Your task to perform on an android device: Open settings on Google Maps Image 0: 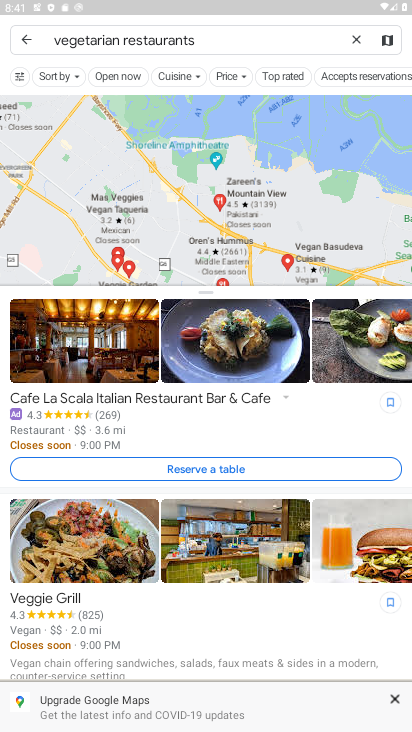
Step 0: press home button
Your task to perform on an android device: Open settings on Google Maps Image 1: 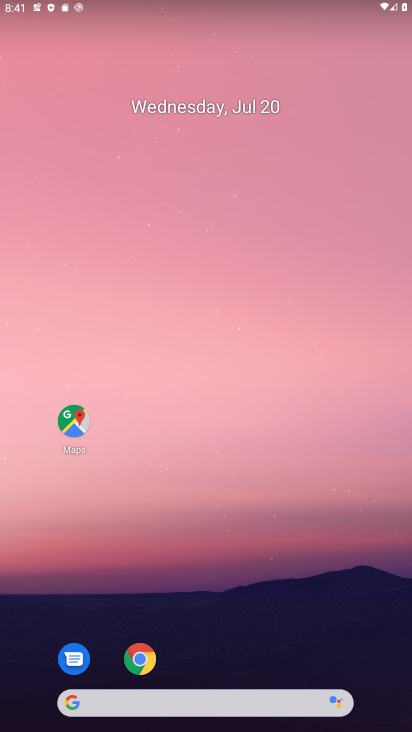
Step 1: drag from (229, 636) to (238, 38)
Your task to perform on an android device: Open settings on Google Maps Image 2: 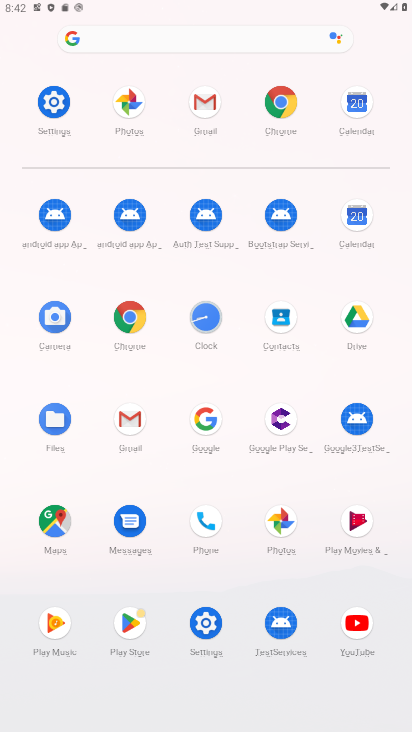
Step 2: click (60, 521)
Your task to perform on an android device: Open settings on Google Maps Image 3: 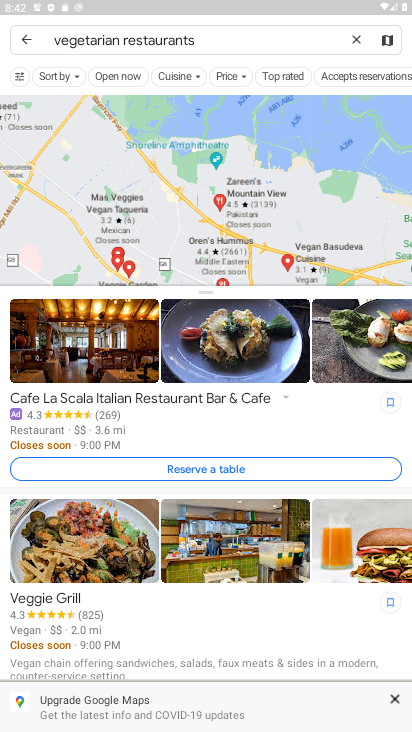
Step 3: press home button
Your task to perform on an android device: Open settings on Google Maps Image 4: 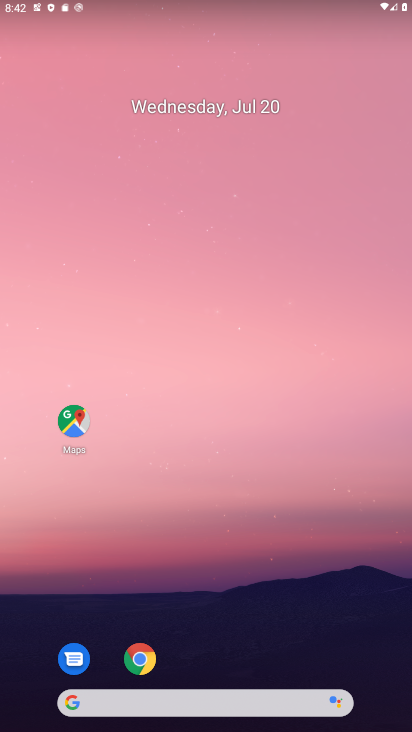
Step 4: drag from (242, 632) to (285, 126)
Your task to perform on an android device: Open settings on Google Maps Image 5: 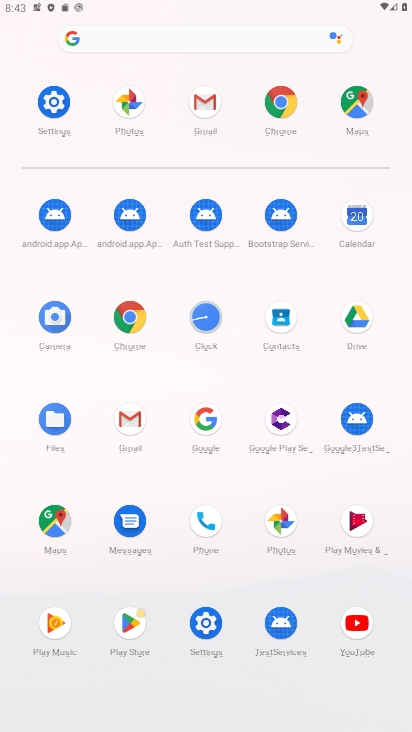
Step 5: click (49, 517)
Your task to perform on an android device: Open settings on Google Maps Image 6: 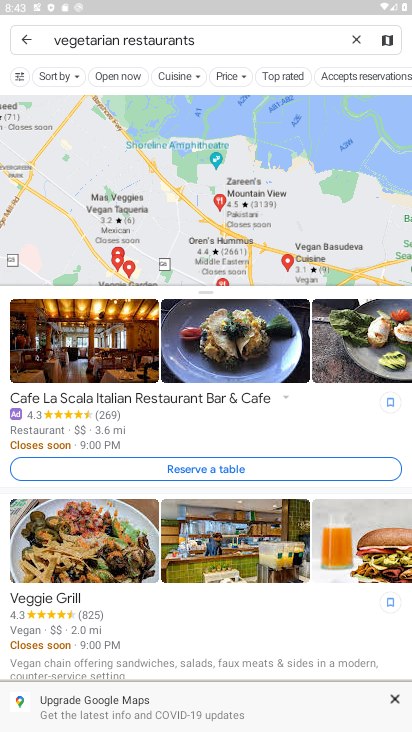
Step 6: click (20, 38)
Your task to perform on an android device: Open settings on Google Maps Image 7: 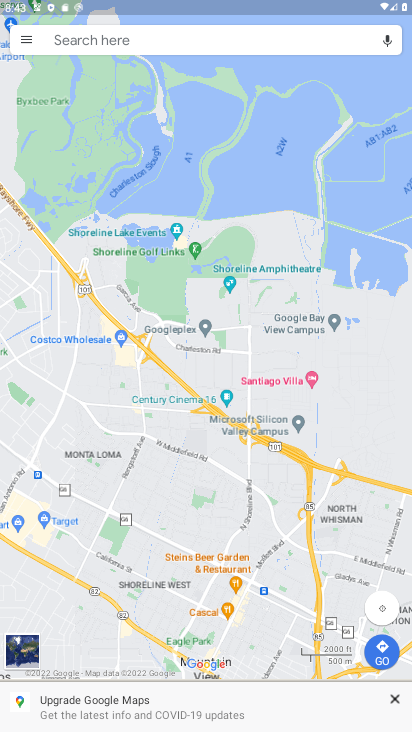
Step 7: click (27, 41)
Your task to perform on an android device: Open settings on Google Maps Image 8: 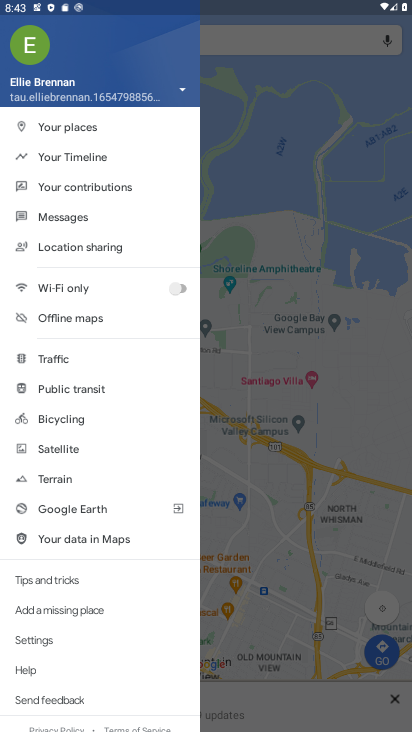
Step 8: drag from (113, 615) to (91, 231)
Your task to perform on an android device: Open settings on Google Maps Image 9: 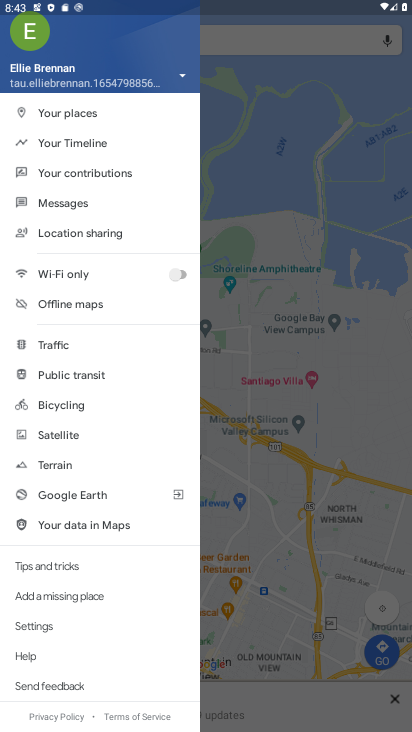
Step 9: click (25, 622)
Your task to perform on an android device: Open settings on Google Maps Image 10: 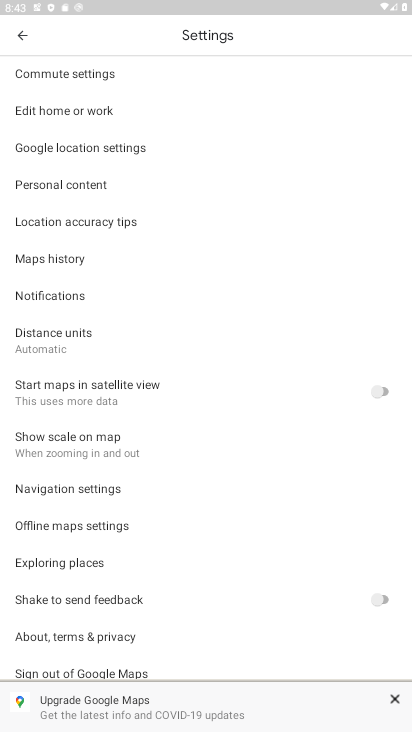
Step 10: task complete